Your task to perform on an android device: search for starred emails in the gmail app Image 0: 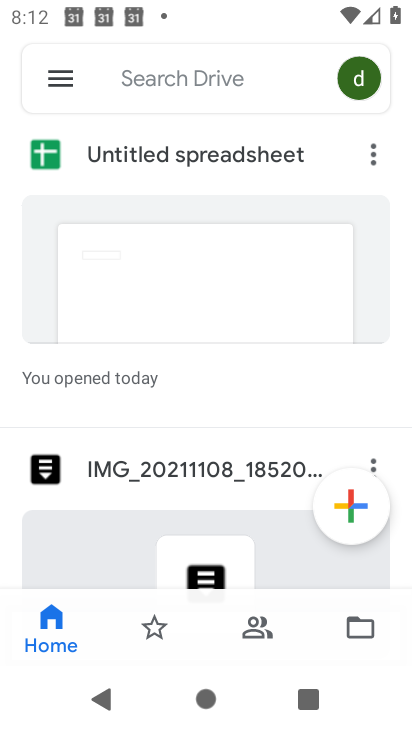
Step 0: press home button
Your task to perform on an android device: search for starred emails in the gmail app Image 1: 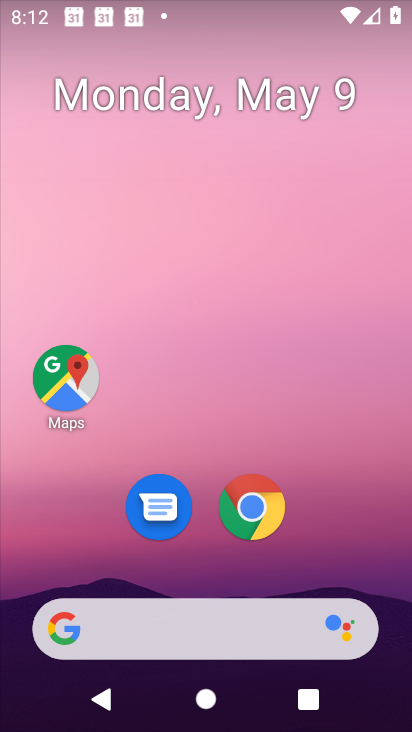
Step 1: drag from (192, 608) to (165, 36)
Your task to perform on an android device: search for starred emails in the gmail app Image 2: 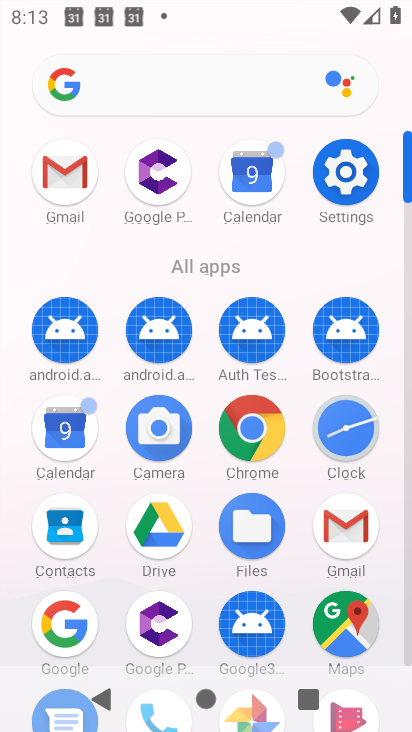
Step 2: click (336, 519)
Your task to perform on an android device: search for starred emails in the gmail app Image 3: 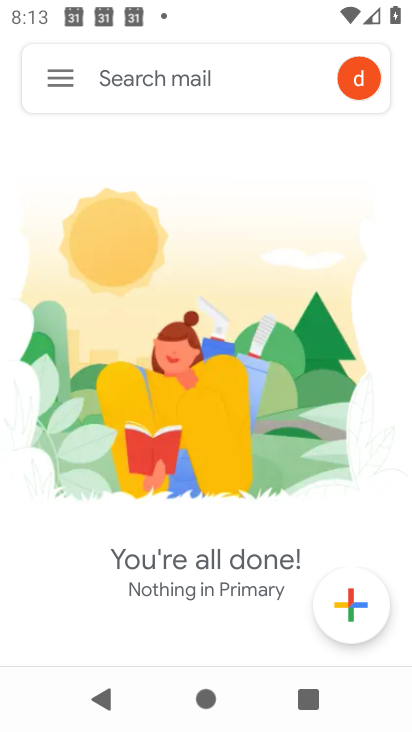
Step 3: click (68, 63)
Your task to perform on an android device: search for starred emails in the gmail app Image 4: 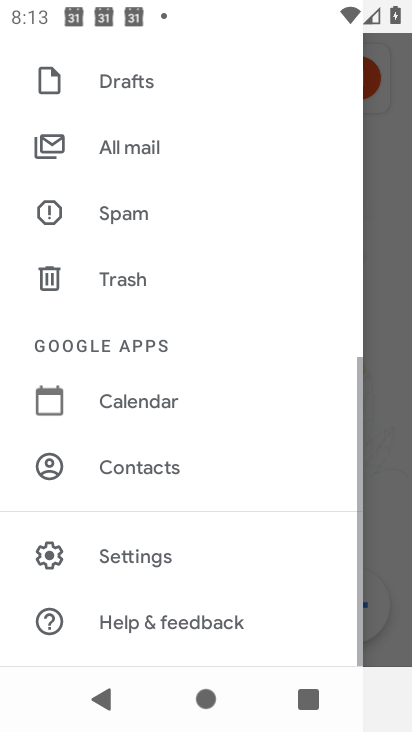
Step 4: drag from (145, 87) to (113, 516)
Your task to perform on an android device: search for starred emails in the gmail app Image 5: 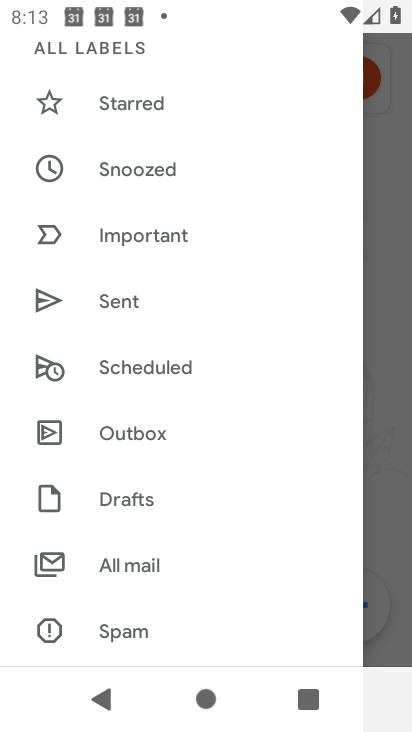
Step 5: click (123, 119)
Your task to perform on an android device: search for starred emails in the gmail app Image 6: 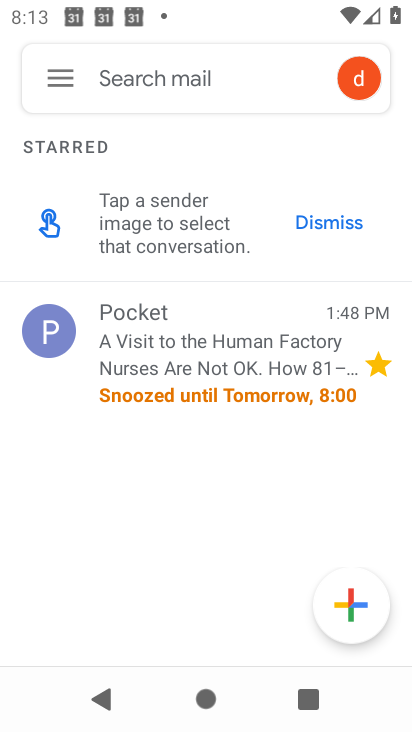
Step 6: task complete